Your task to perform on an android device: Go to ESPN.com Image 0: 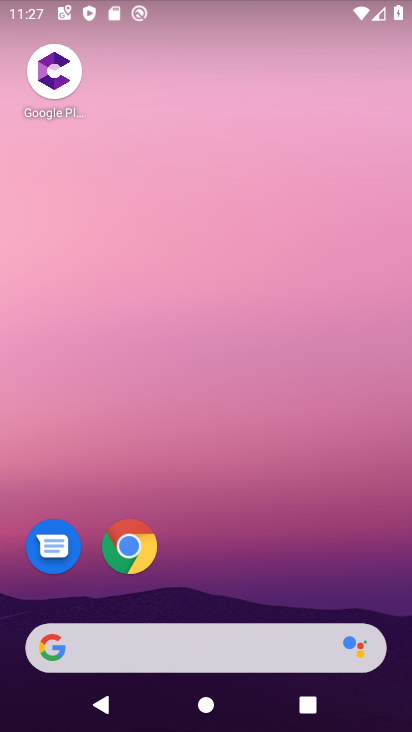
Step 0: click (190, 638)
Your task to perform on an android device: Go to ESPN.com Image 1: 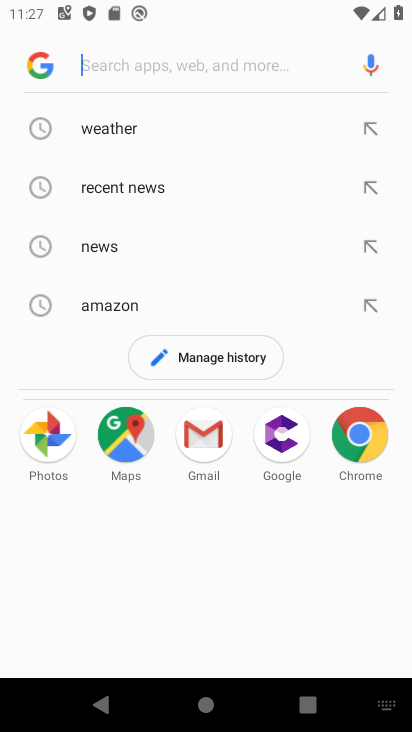
Step 1: type "espn"
Your task to perform on an android device: Go to ESPN.com Image 2: 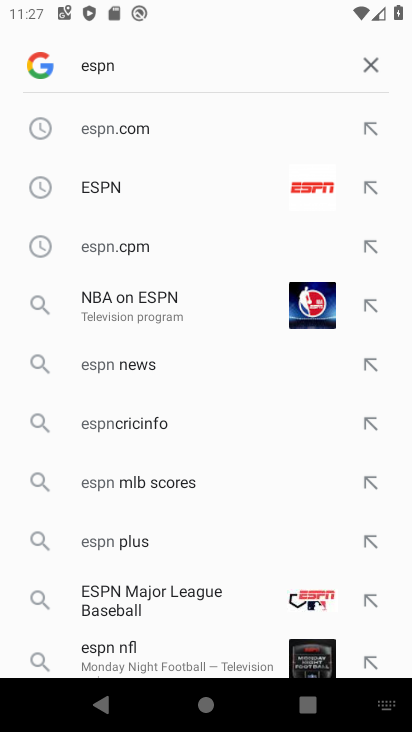
Step 2: click (121, 128)
Your task to perform on an android device: Go to ESPN.com Image 3: 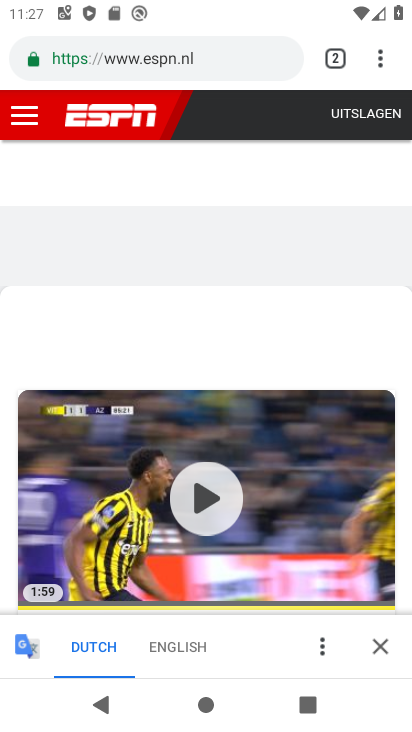
Step 3: task complete